Your task to perform on an android device: What's the weather going to be this weekend? Image 0: 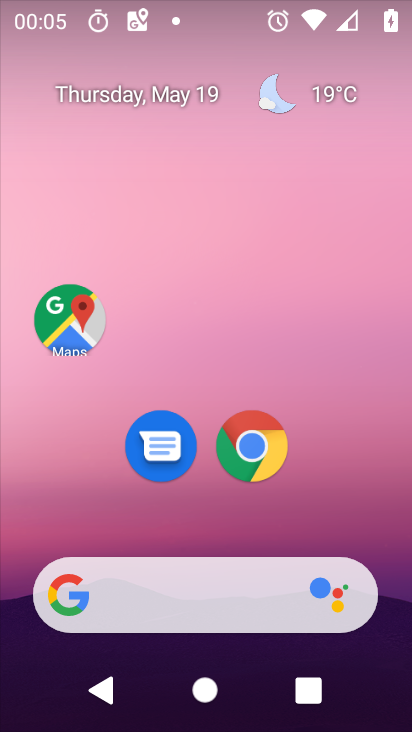
Step 0: click (327, 85)
Your task to perform on an android device: What's the weather going to be this weekend? Image 1: 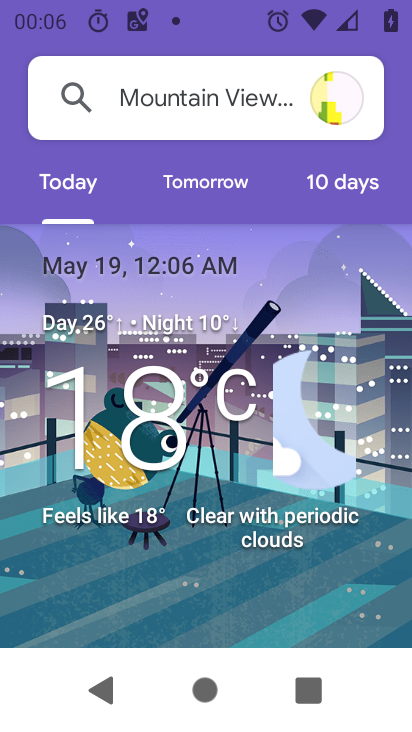
Step 1: click (347, 187)
Your task to perform on an android device: What's the weather going to be this weekend? Image 2: 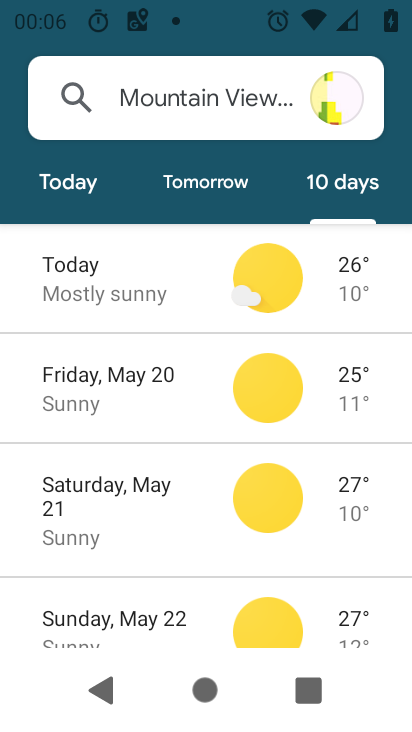
Step 2: click (137, 526)
Your task to perform on an android device: What's the weather going to be this weekend? Image 3: 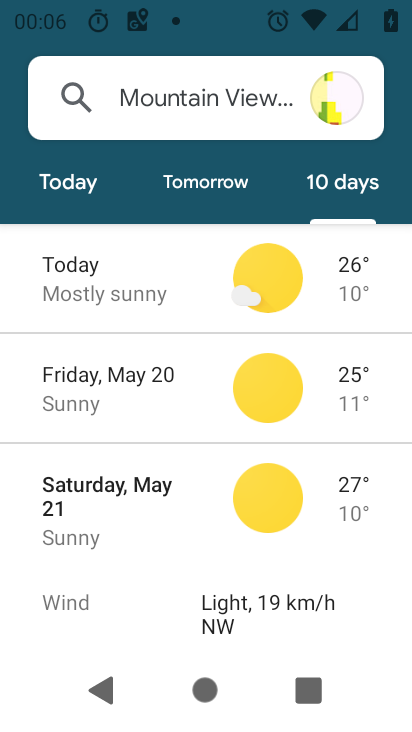
Step 3: task complete